Your task to perform on an android device: Go to sound settings Image 0: 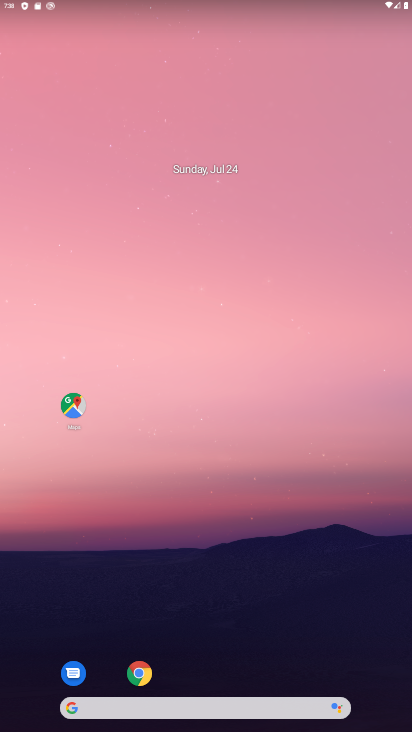
Step 0: drag from (200, 651) to (250, 228)
Your task to perform on an android device: Go to sound settings Image 1: 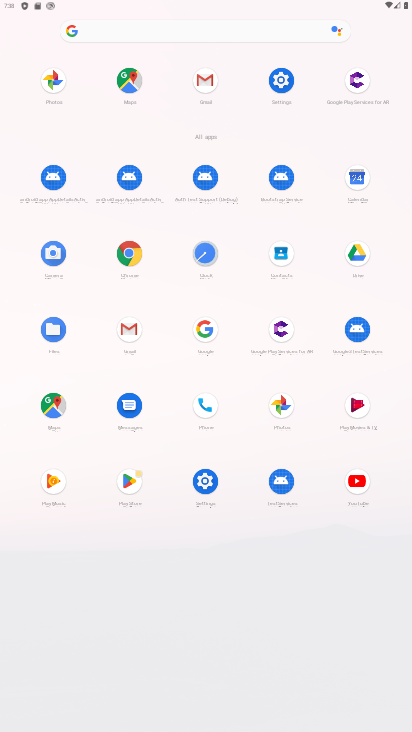
Step 1: click (173, 482)
Your task to perform on an android device: Go to sound settings Image 2: 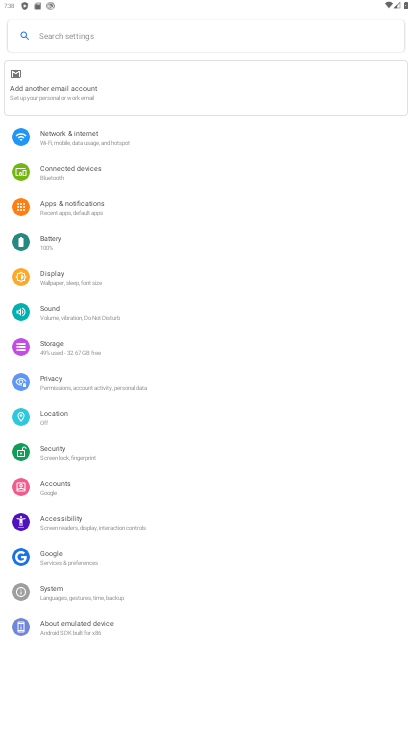
Step 2: click (78, 316)
Your task to perform on an android device: Go to sound settings Image 3: 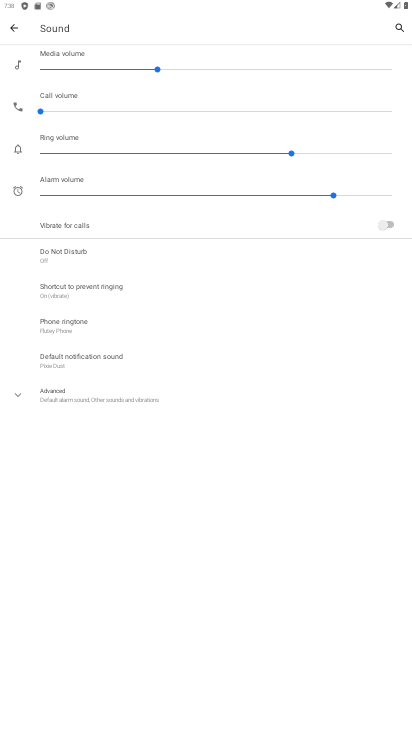
Step 3: task complete